Your task to perform on an android device: Go to location settings Image 0: 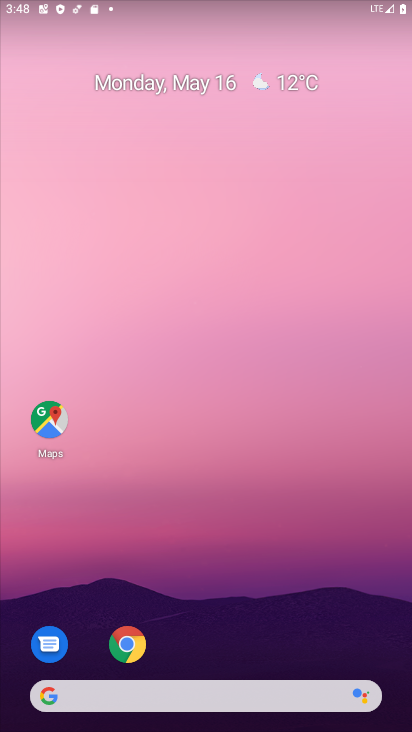
Step 0: drag from (181, 679) to (271, 103)
Your task to perform on an android device: Go to location settings Image 1: 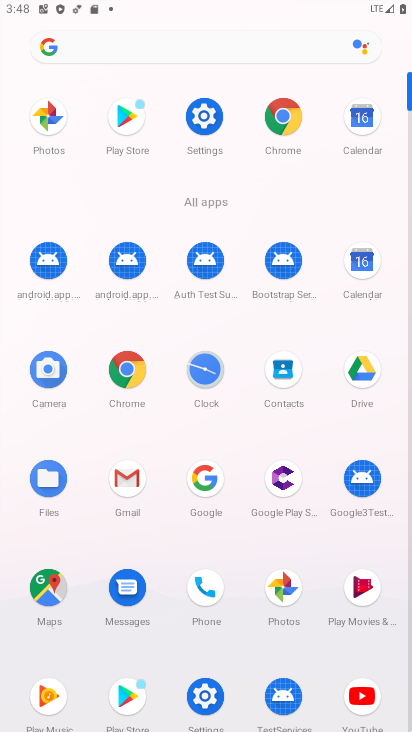
Step 1: click (208, 109)
Your task to perform on an android device: Go to location settings Image 2: 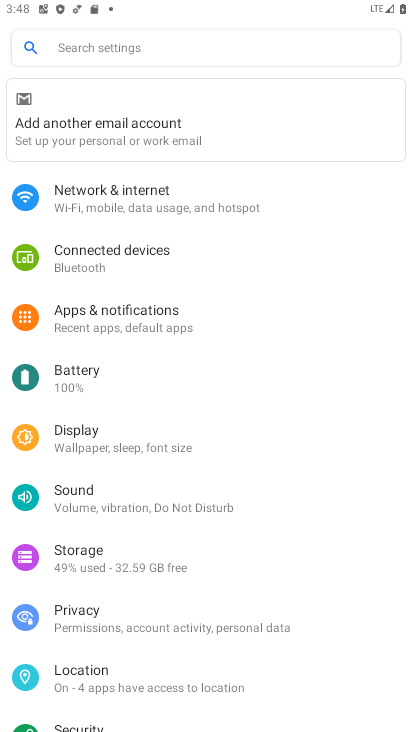
Step 2: drag from (160, 591) to (205, 346)
Your task to perform on an android device: Go to location settings Image 3: 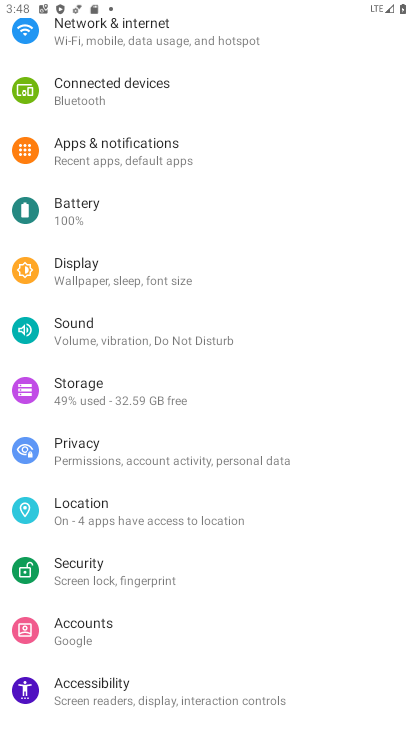
Step 3: click (110, 514)
Your task to perform on an android device: Go to location settings Image 4: 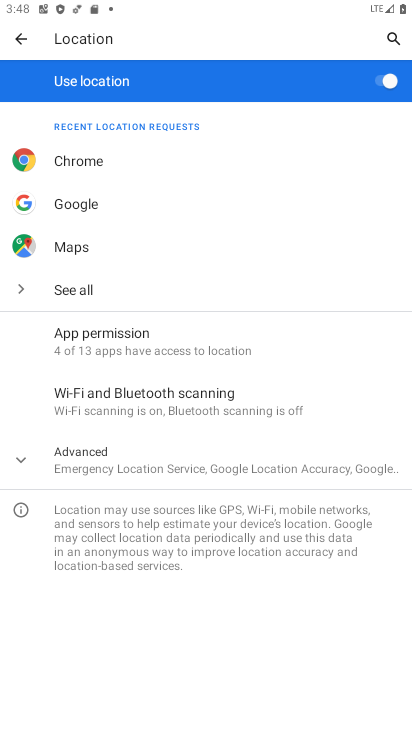
Step 4: task complete